Your task to perform on an android device: change the clock display to analog Image 0: 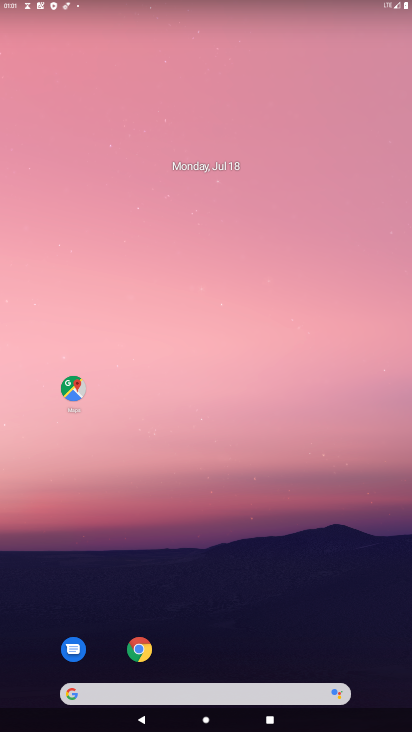
Step 0: drag from (196, 655) to (234, 29)
Your task to perform on an android device: change the clock display to analog Image 1: 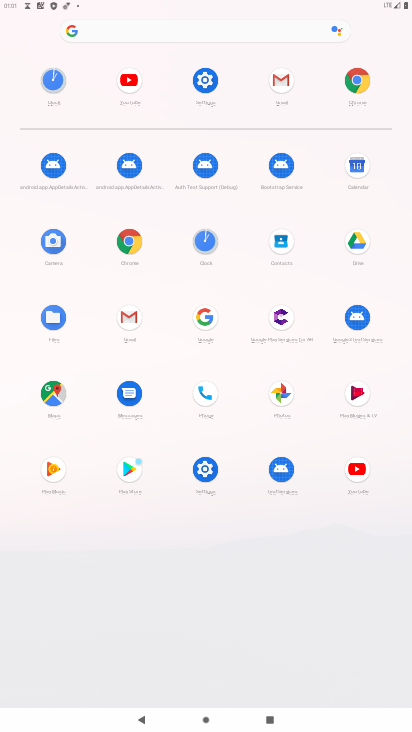
Step 1: click (205, 251)
Your task to perform on an android device: change the clock display to analog Image 2: 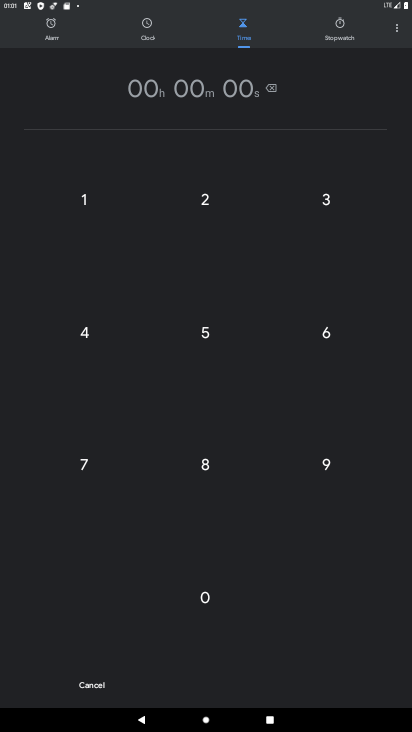
Step 2: click (397, 32)
Your task to perform on an android device: change the clock display to analog Image 3: 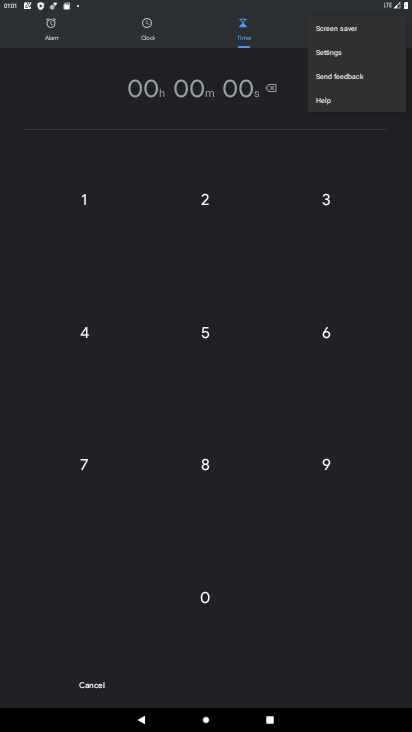
Step 3: click (354, 53)
Your task to perform on an android device: change the clock display to analog Image 4: 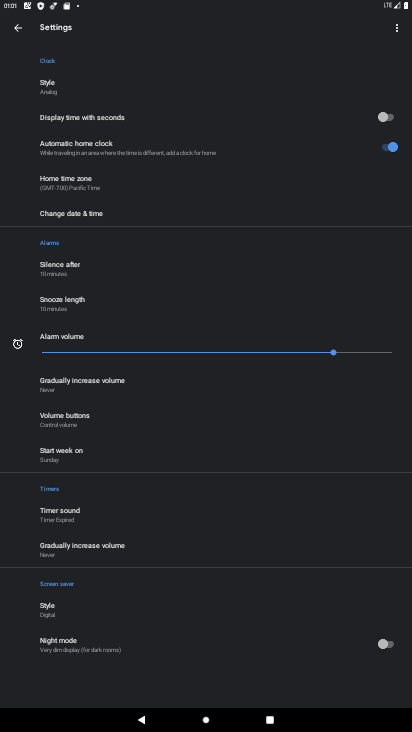
Step 4: click (55, 86)
Your task to perform on an android device: change the clock display to analog Image 5: 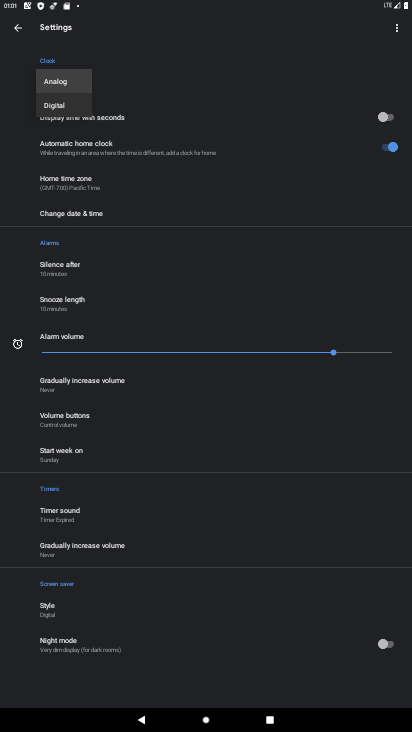
Step 5: click (63, 85)
Your task to perform on an android device: change the clock display to analog Image 6: 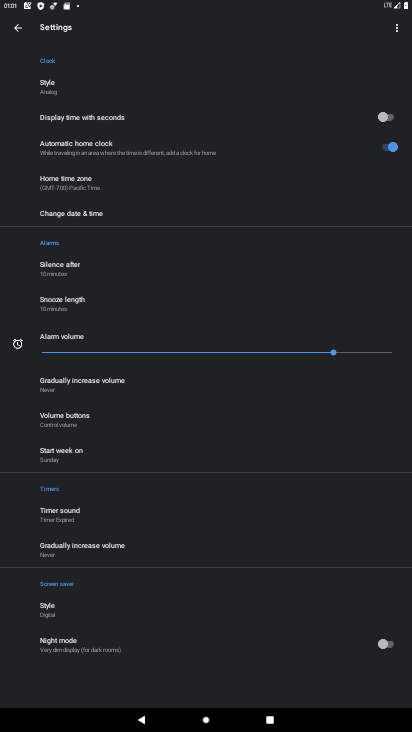
Step 6: task complete